Your task to perform on an android device: delete browsing data in the chrome app Image 0: 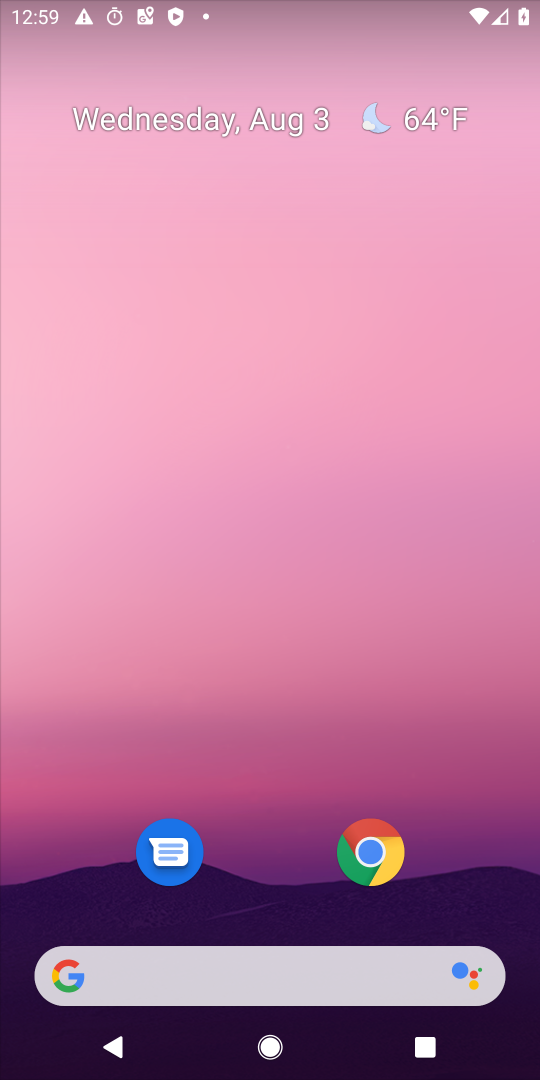
Step 0: drag from (484, 891) to (244, 13)
Your task to perform on an android device: delete browsing data in the chrome app Image 1: 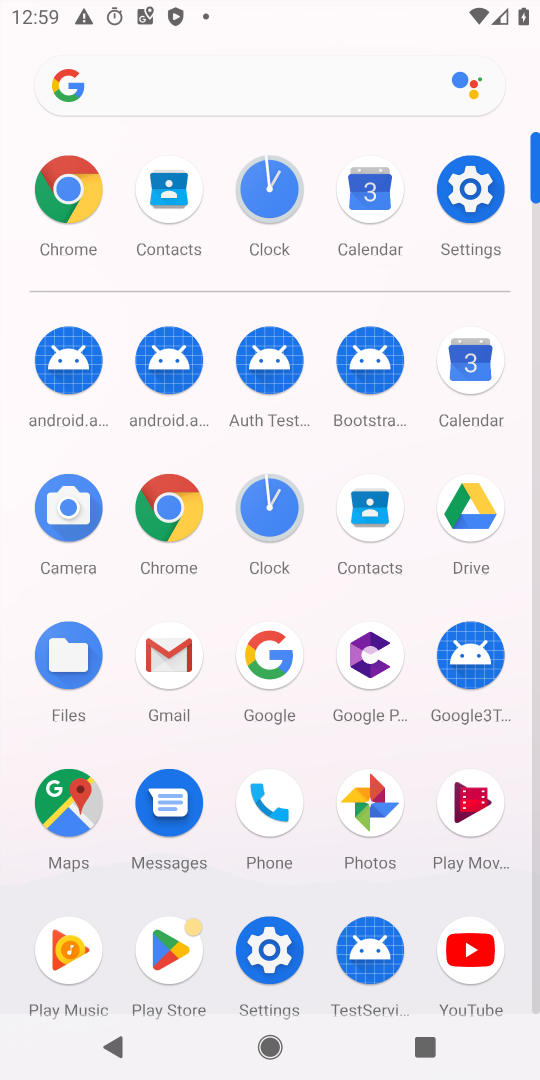
Step 1: click (187, 509)
Your task to perform on an android device: delete browsing data in the chrome app Image 2: 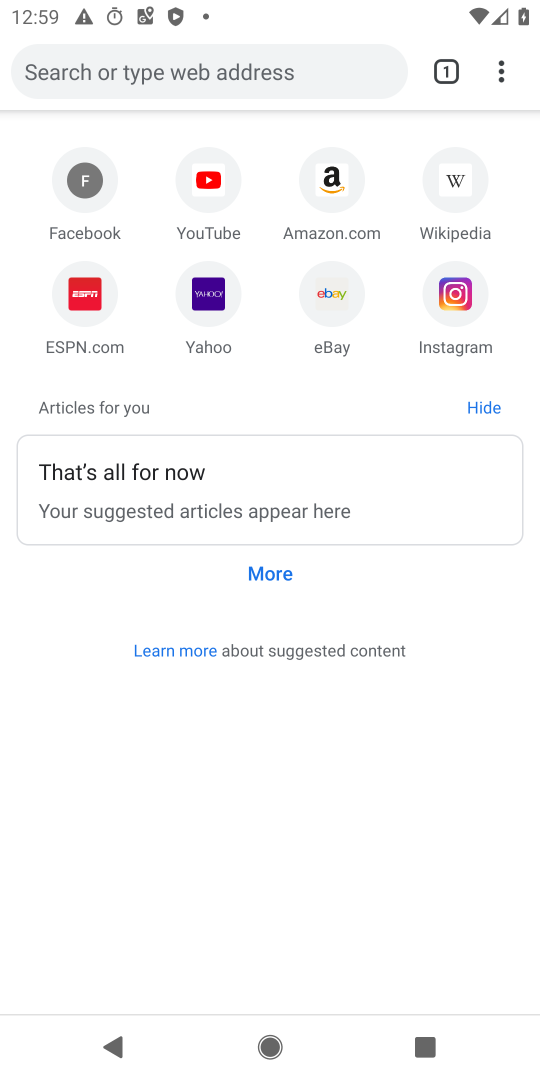
Step 2: click (499, 73)
Your task to perform on an android device: delete browsing data in the chrome app Image 3: 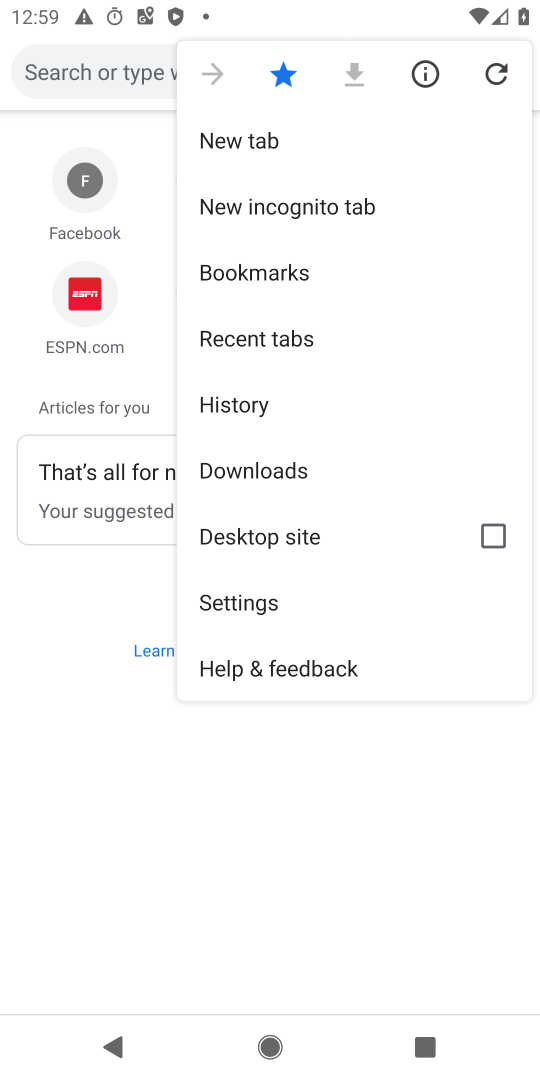
Step 3: click (220, 401)
Your task to perform on an android device: delete browsing data in the chrome app Image 4: 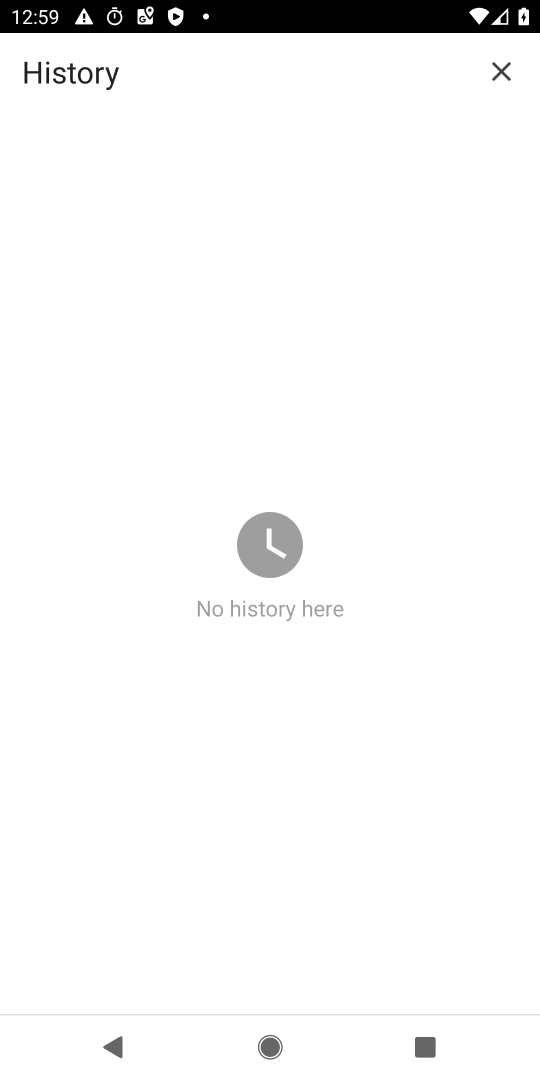
Step 4: task complete